Your task to perform on an android device: open app "eBay: The shopping marketplace" (install if not already installed), go to login, and select forgot password Image 0: 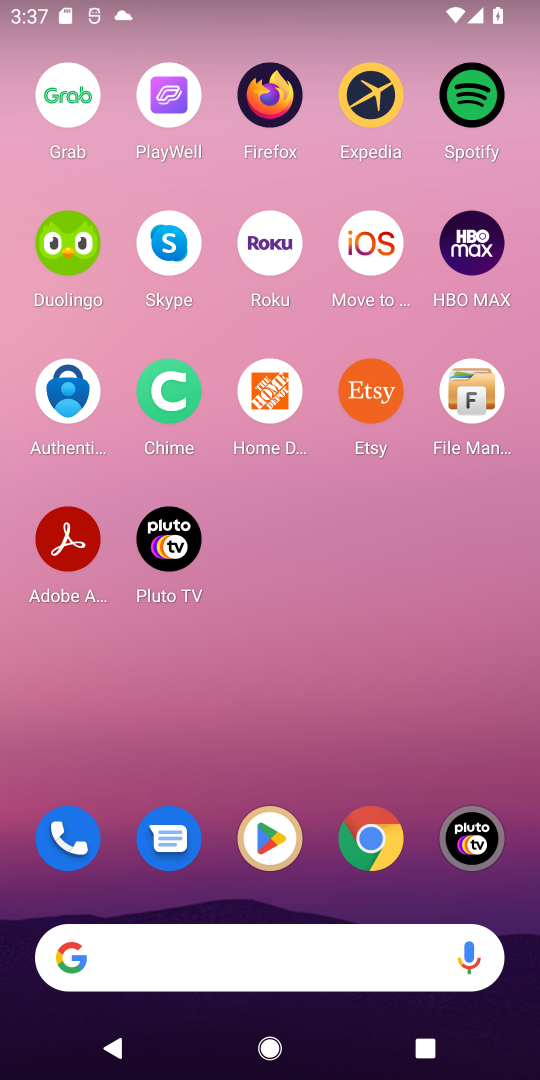
Step 0: click (245, 837)
Your task to perform on an android device: open app "eBay: The shopping marketplace" (install if not already installed), go to login, and select forgot password Image 1: 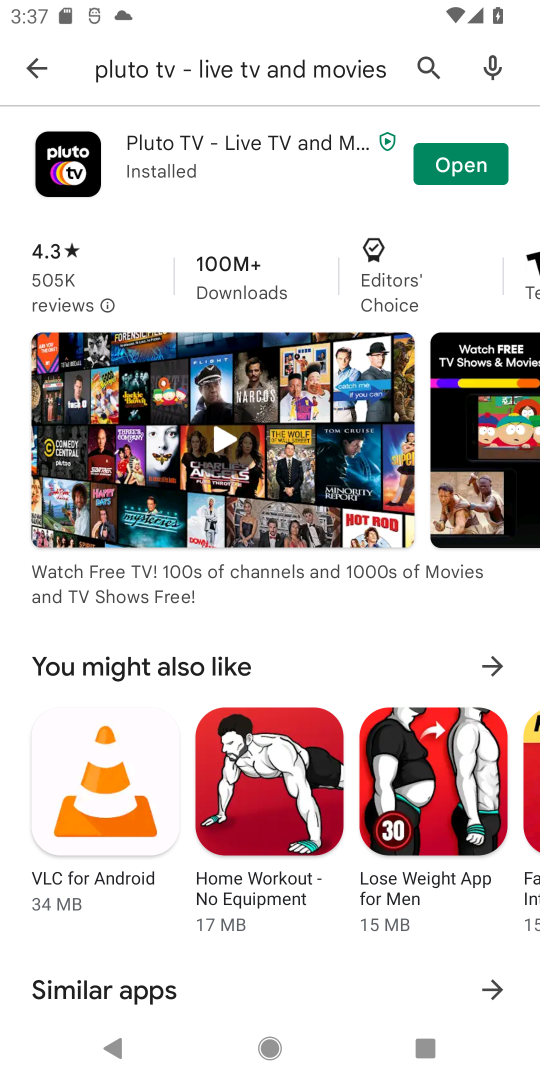
Step 1: click (44, 84)
Your task to perform on an android device: open app "eBay: The shopping marketplace" (install if not already installed), go to login, and select forgot password Image 2: 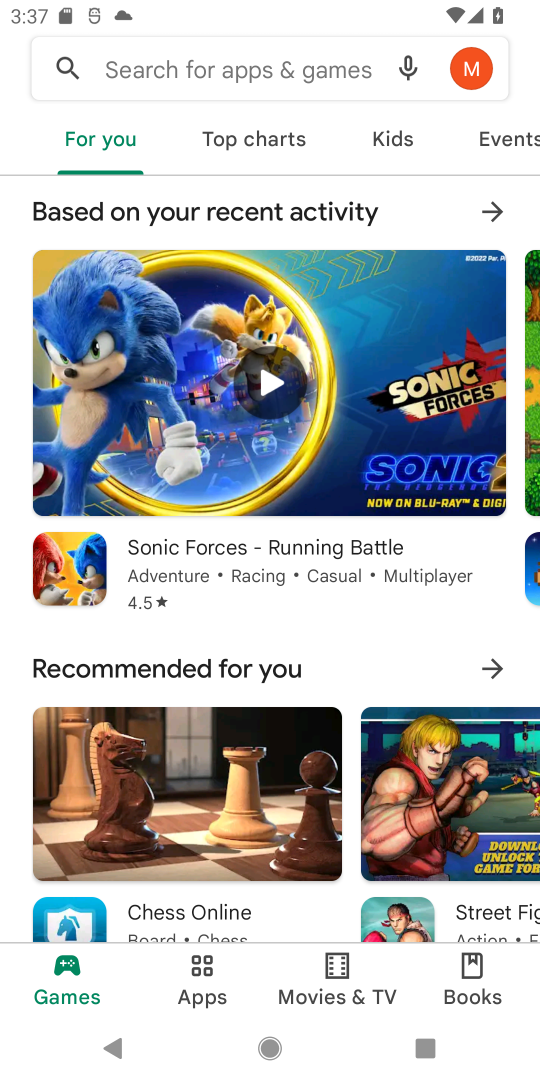
Step 2: click (114, 66)
Your task to perform on an android device: open app "eBay: The shopping marketplace" (install if not already installed), go to login, and select forgot password Image 3: 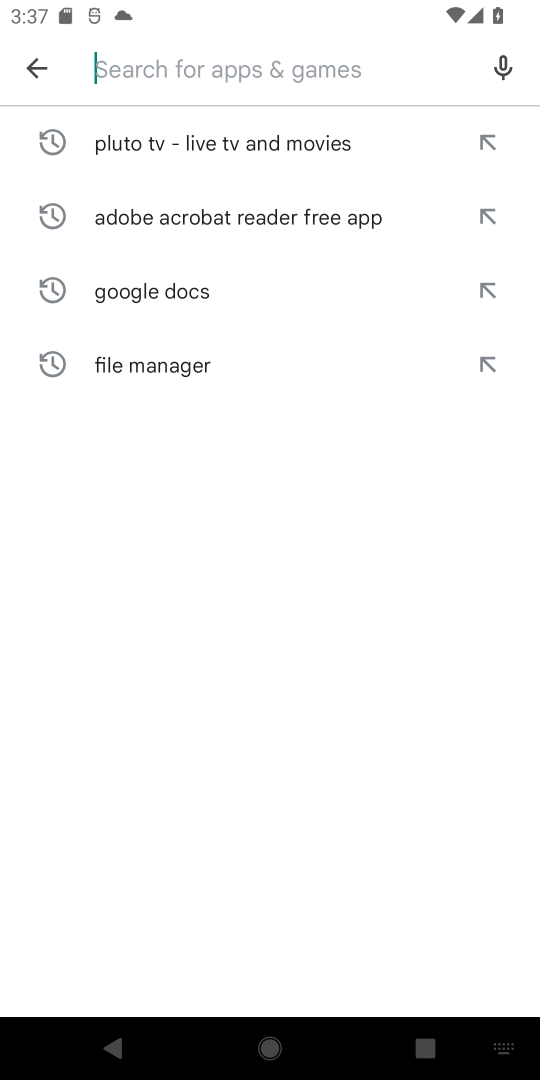
Step 3: click (114, 66)
Your task to perform on an android device: open app "eBay: The shopping marketplace" (install if not already installed), go to login, and select forgot password Image 4: 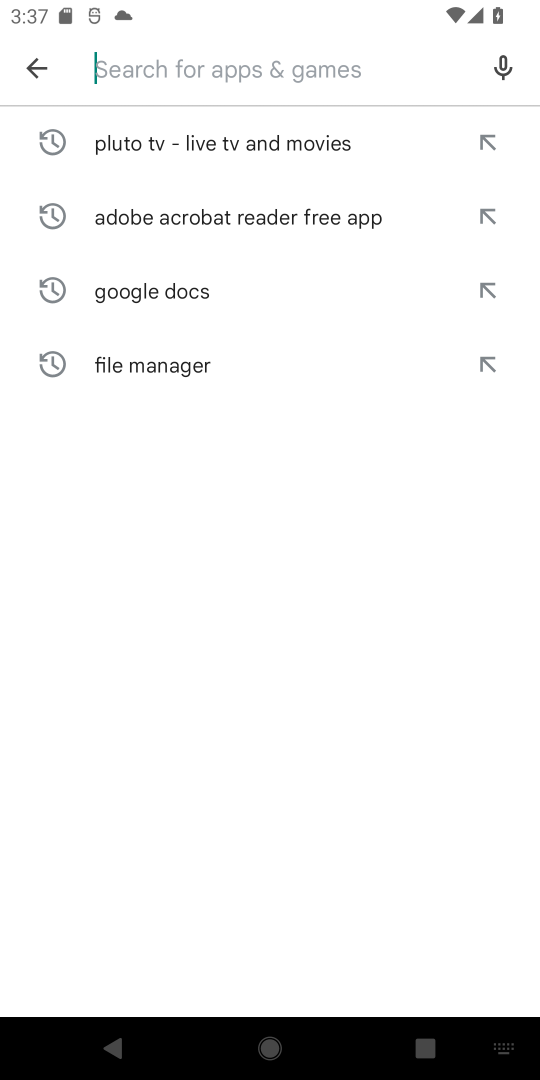
Step 4: type "eBay"
Your task to perform on an android device: open app "eBay: The shopping marketplace" (install if not already installed), go to login, and select forgot password Image 5: 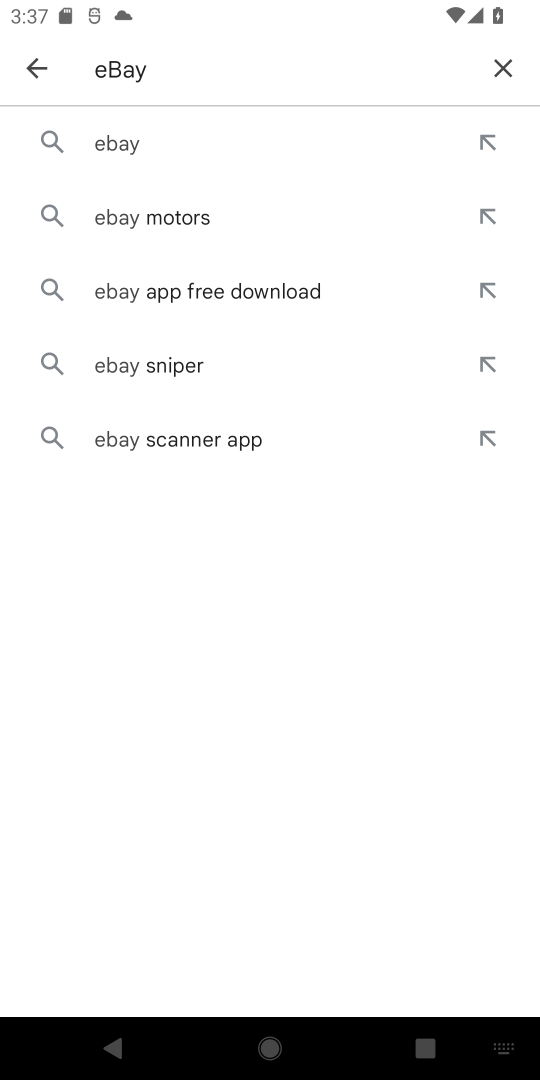
Step 5: click (110, 122)
Your task to perform on an android device: open app "eBay: The shopping marketplace" (install if not already installed), go to login, and select forgot password Image 6: 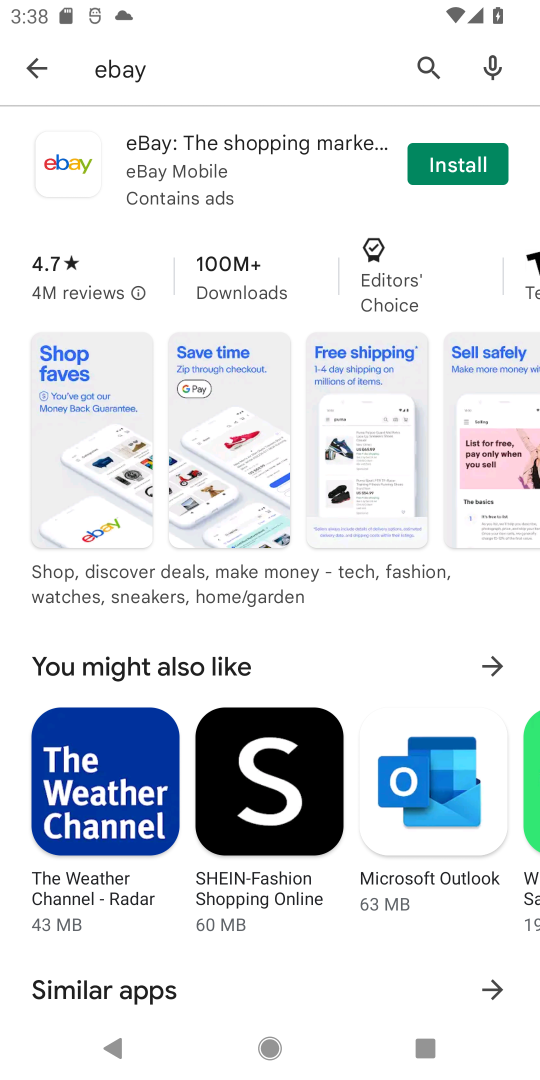
Step 6: click (468, 174)
Your task to perform on an android device: open app "eBay: The shopping marketplace" (install if not already installed), go to login, and select forgot password Image 7: 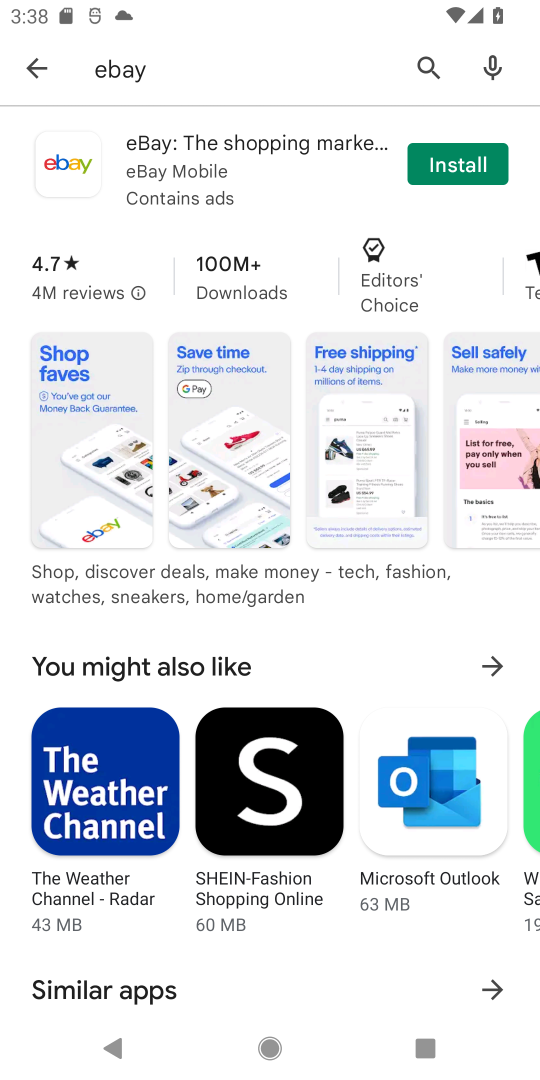
Step 7: click (468, 174)
Your task to perform on an android device: open app "eBay: The shopping marketplace" (install if not already installed), go to login, and select forgot password Image 8: 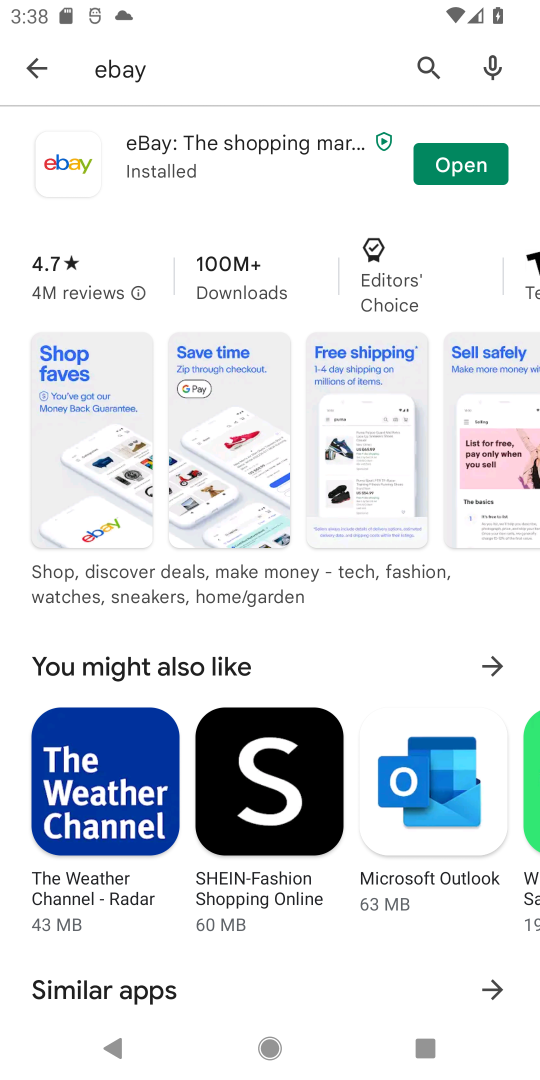
Step 8: click (449, 173)
Your task to perform on an android device: open app "eBay: The shopping marketplace" (install if not already installed), go to login, and select forgot password Image 9: 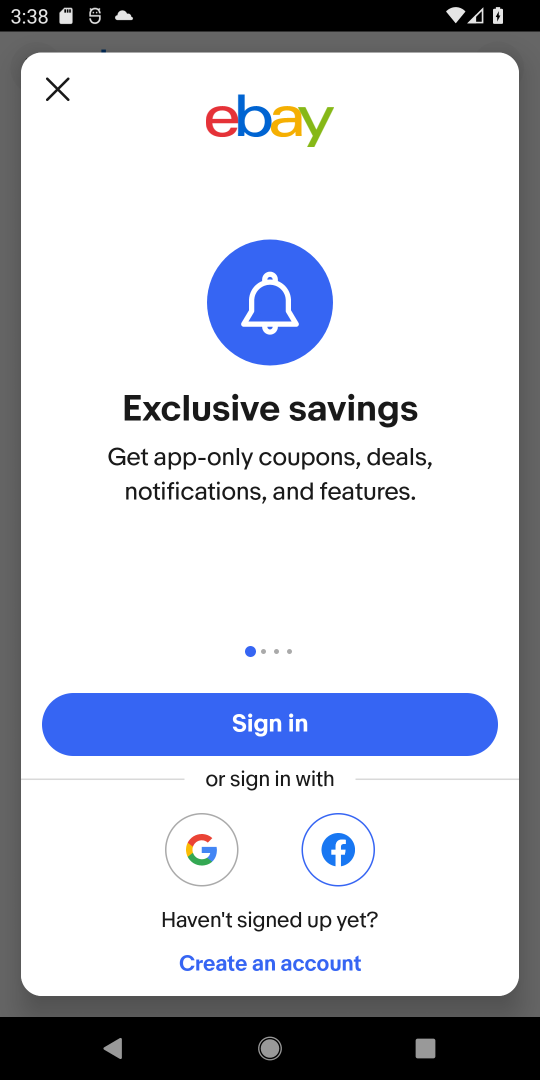
Step 9: click (496, 57)
Your task to perform on an android device: open app "eBay: The shopping marketplace" (install if not already installed), go to login, and select forgot password Image 10: 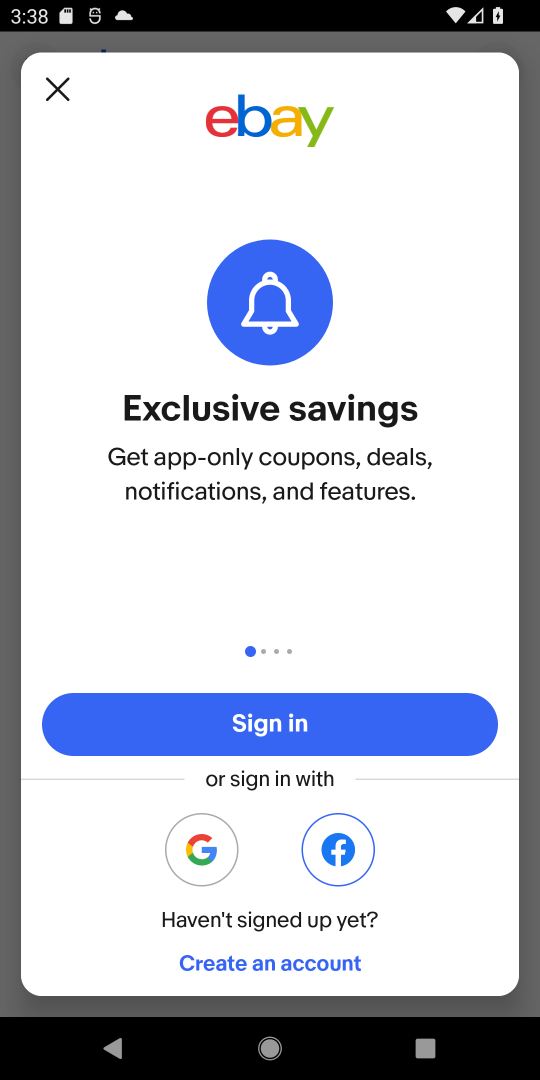
Step 10: click (217, 729)
Your task to perform on an android device: open app "eBay: The shopping marketplace" (install if not already installed), go to login, and select forgot password Image 11: 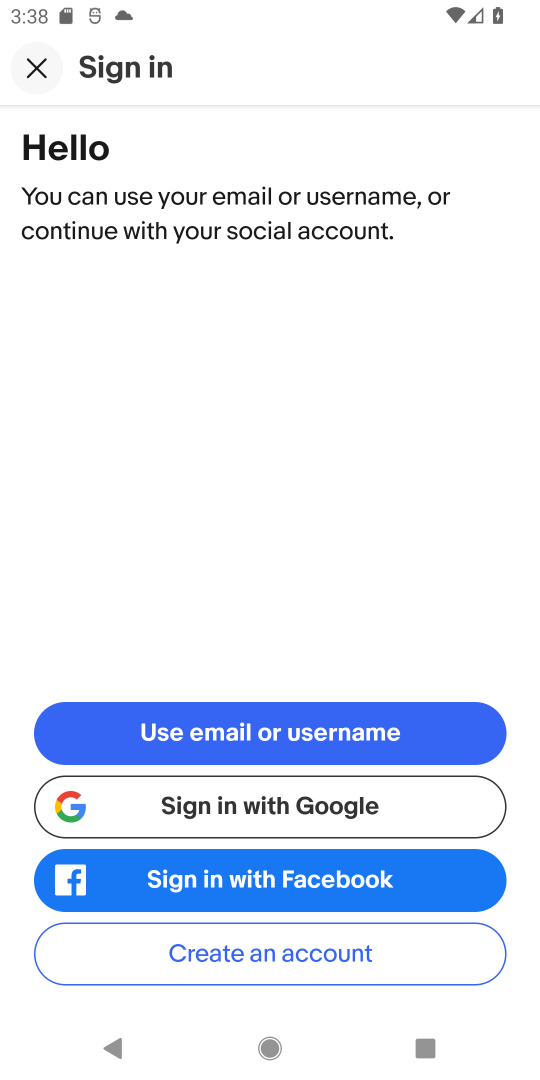
Step 11: click (186, 743)
Your task to perform on an android device: open app "eBay: The shopping marketplace" (install if not already installed), go to login, and select forgot password Image 12: 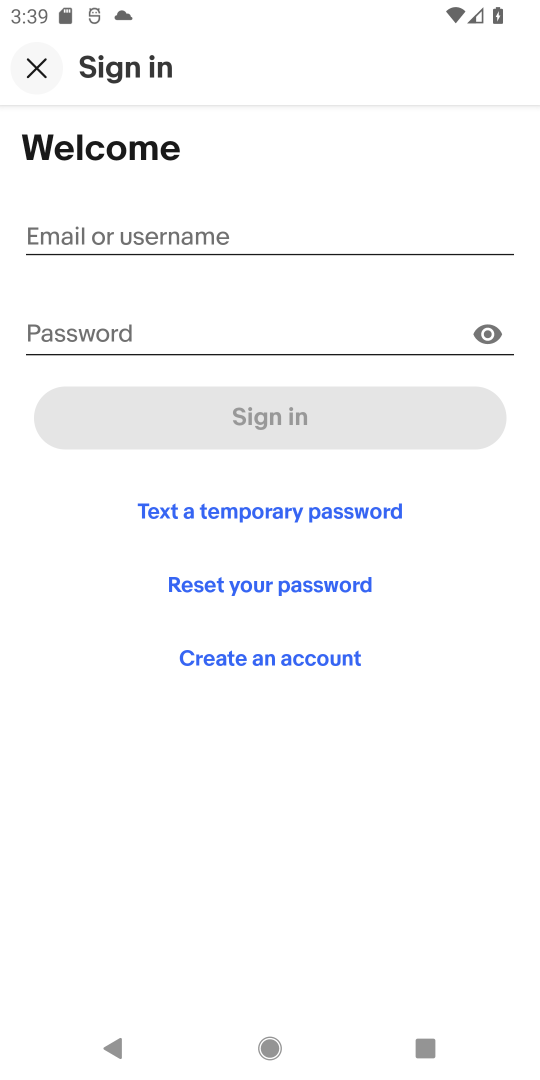
Step 12: click (248, 583)
Your task to perform on an android device: open app "eBay: The shopping marketplace" (install if not already installed), go to login, and select forgot password Image 13: 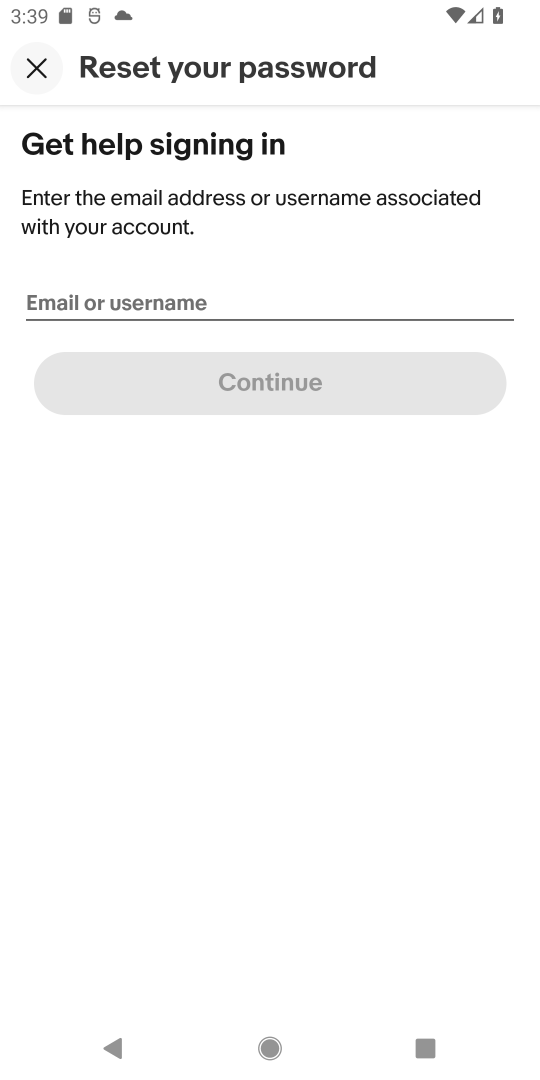
Step 13: task complete